Your task to perform on an android device: Open Maps and search for coffee Image 0: 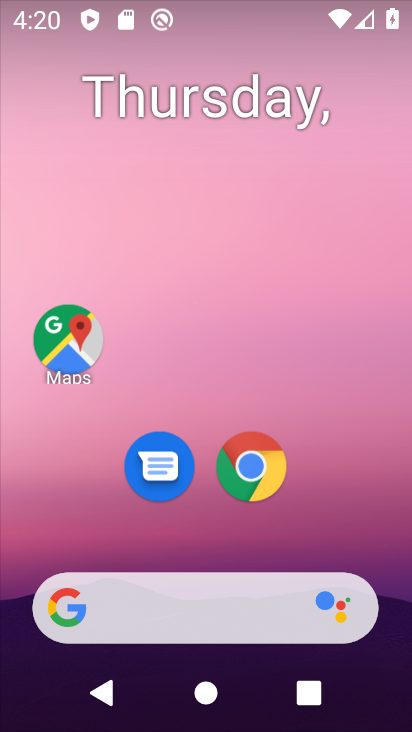
Step 0: drag from (341, 495) to (378, 61)
Your task to perform on an android device: Open Maps and search for coffee Image 1: 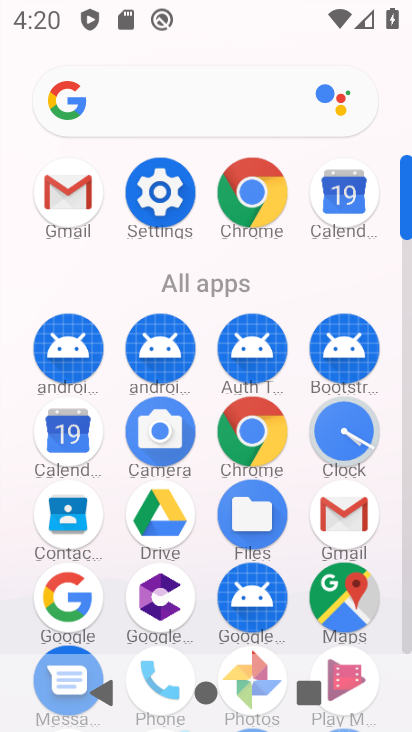
Step 1: click (345, 587)
Your task to perform on an android device: Open Maps and search for coffee Image 2: 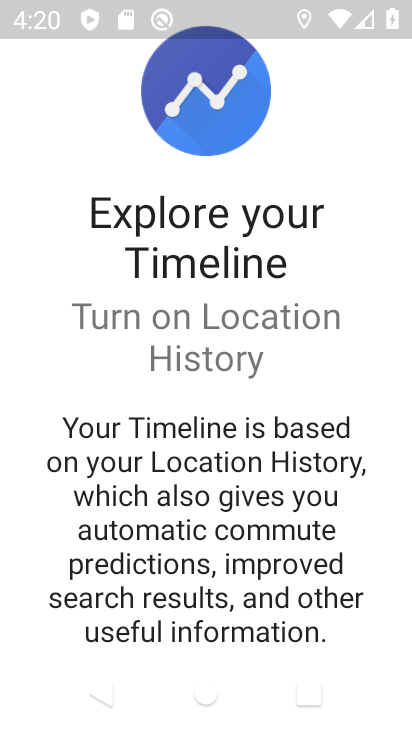
Step 2: drag from (294, 564) to (343, 182)
Your task to perform on an android device: Open Maps and search for coffee Image 3: 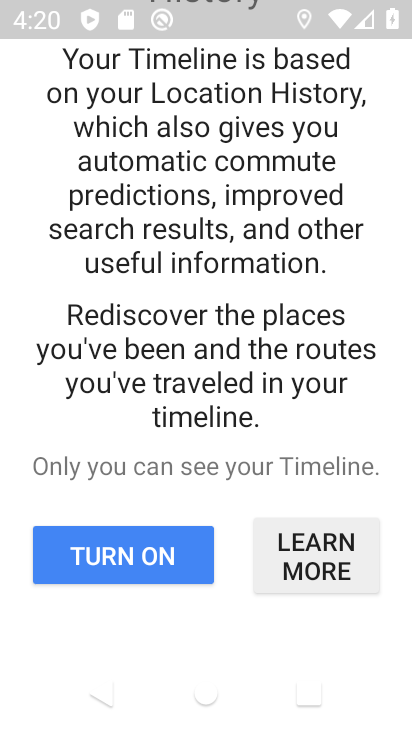
Step 3: click (295, 533)
Your task to perform on an android device: Open Maps and search for coffee Image 4: 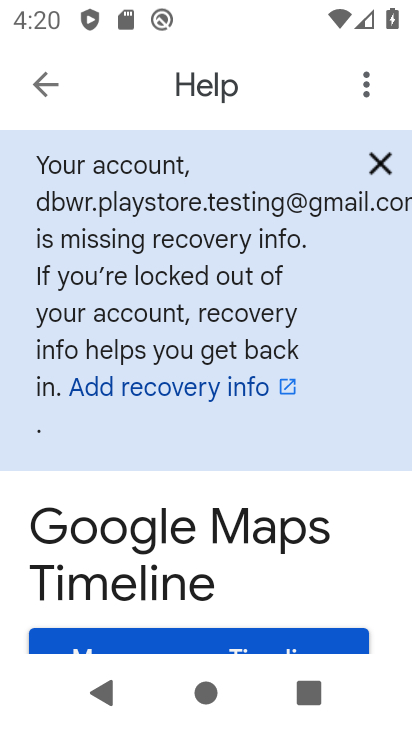
Step 4: click (54, 92)
Your task to perform on an android device: Open Maps and search for coffee Image 5: 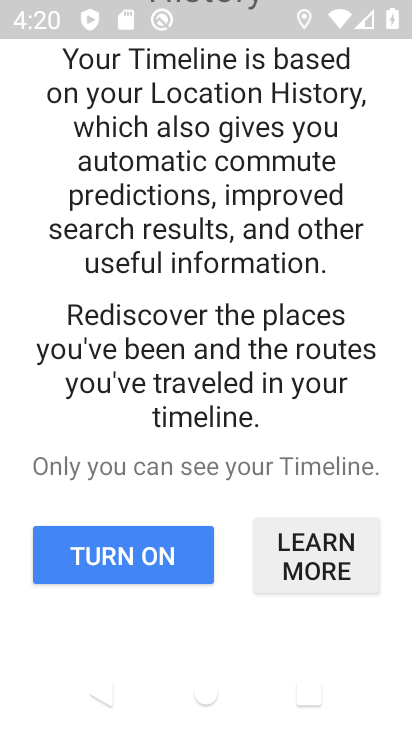
Step 5: drag from (337, 245) to (370, 432)
Your task to perform on an android device: Open Maps and search for coffee Image 6: 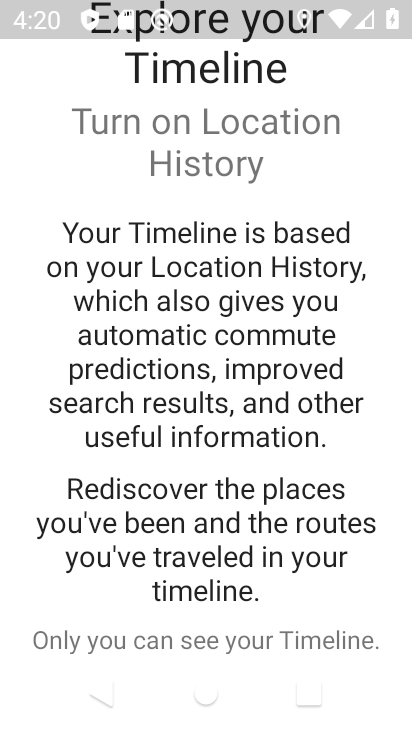
Step 6: press back button
Your task to perform on an android device: Open Maps and search for coffee Image 7: 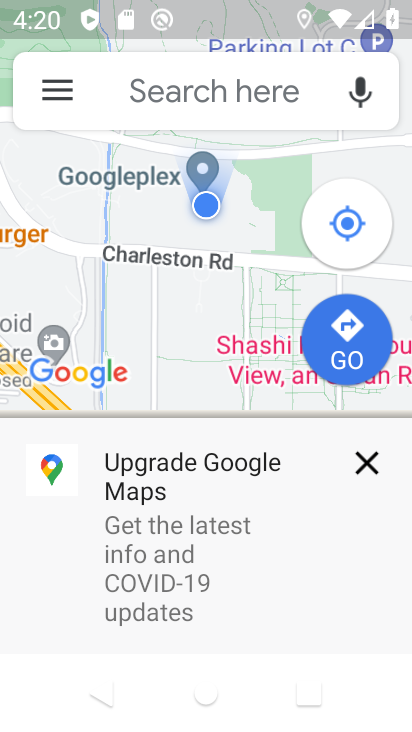
Step 7: click (200, 98)
Your task to perform on an android device: Open Maps and search for coffee Image 8: 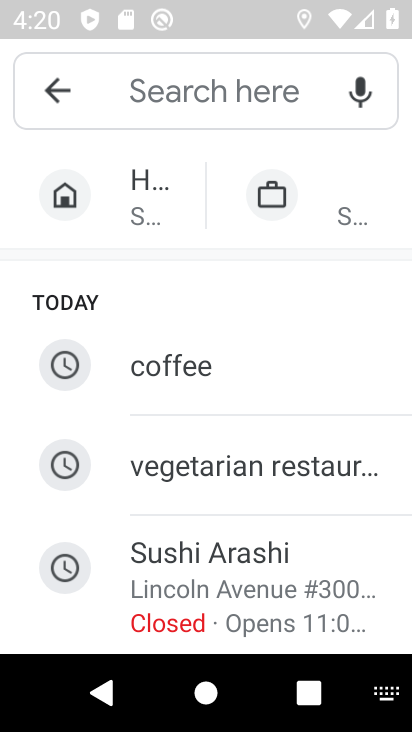
Step 8: click (186, 380)
Your task to perform on an android device: Open Maps and search for coffee Image 9: 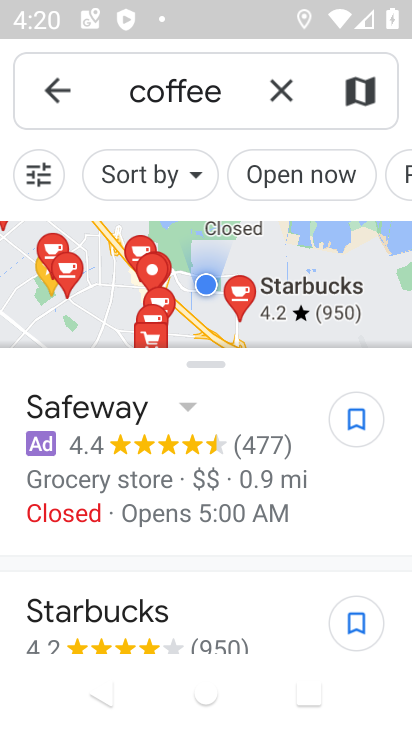
Step 9: task complete